Your task to perform on an android device: open wifi settings Image 0: 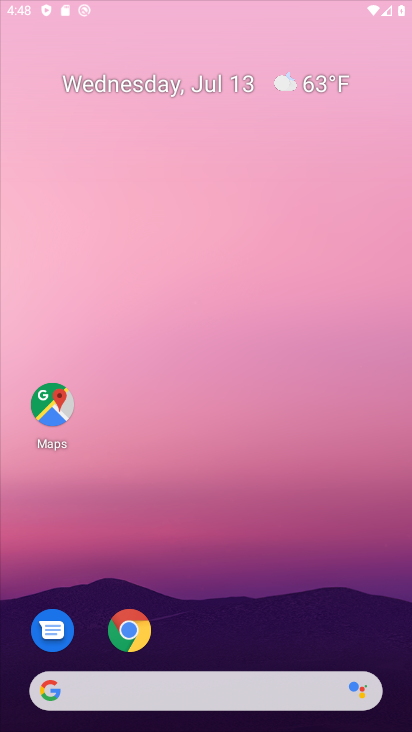
Step 0: press home button
Your task to perform on an android device: open wifi settings Image 1: 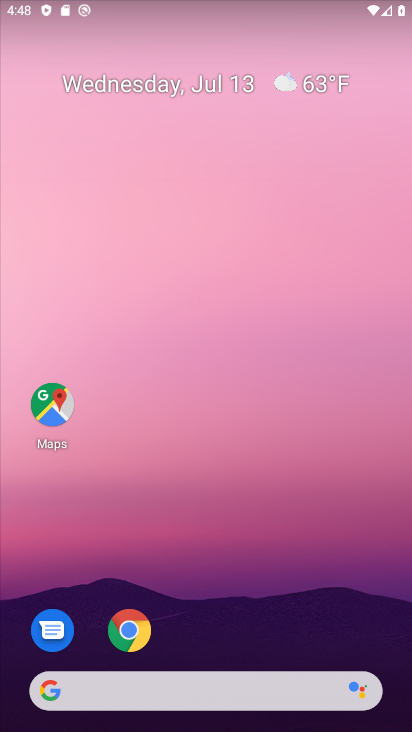
Step 1: drag from (252, 639) to (286, 67)
Your task to perform on an android device: open wifi settings Image 2: 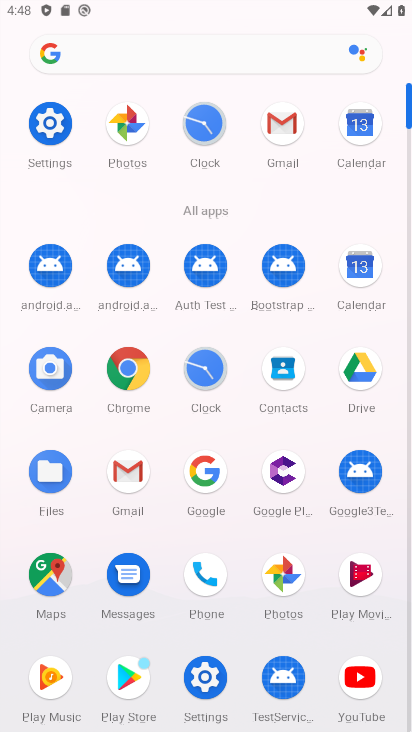
Step 2: click (50, 131)
Your task to perform on an android device: open wifi settings Image 3: 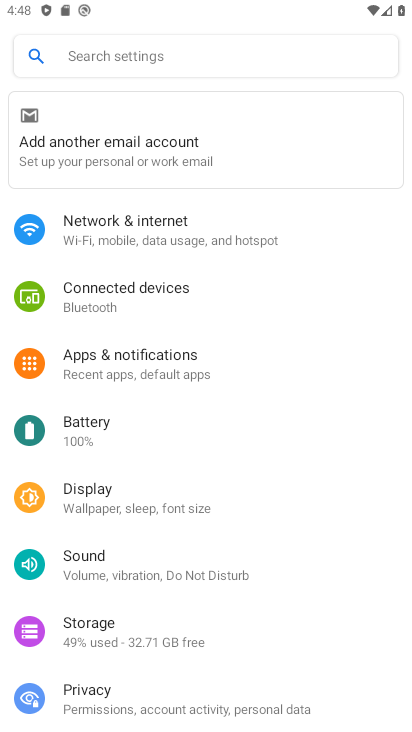
Step 3: click (123, 230)
Your task to perform on an android device: open wifi settings Image 4: 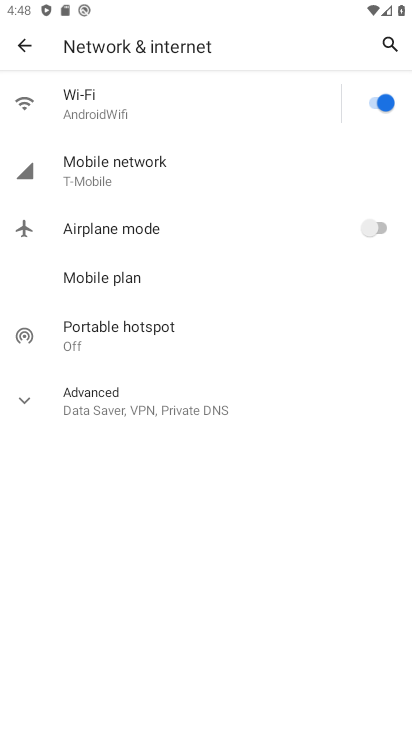
Step 4: click (96, 94)
Your task to perform on an android device: open wifi settings Image 5: 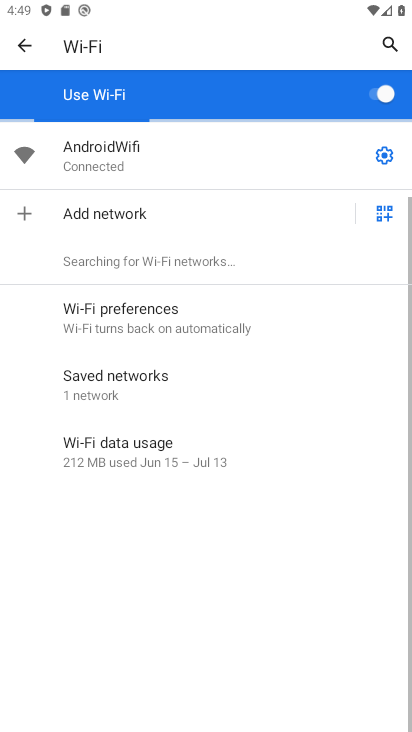
Step 5: task complete